Your task to perform on an android device: change timer sound Image 0: 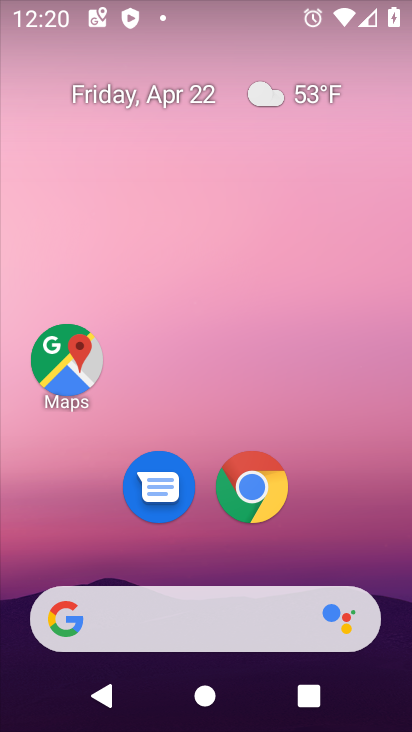
Step 0: drag from (335, 525) to (321, 76)
Your task to perform on an android device: change timer sound Image 1: 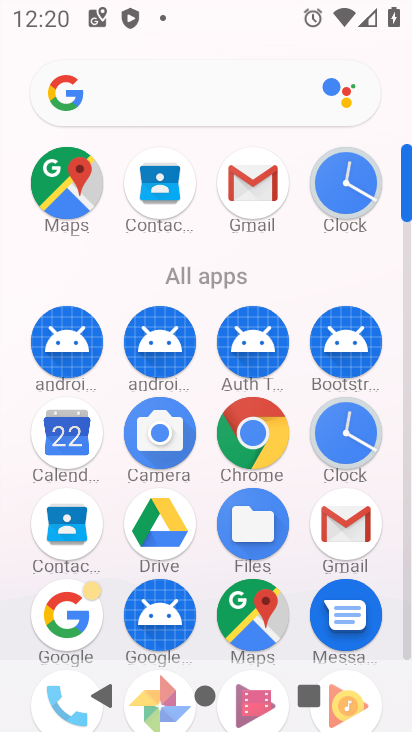
Step 1: click (352, 191)
Your task to perform on an android device: change timer sound Image 2: 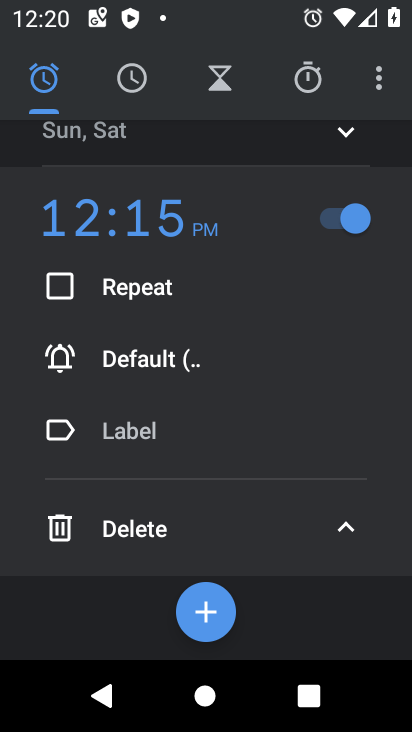
Step 2: click (379, 80)
Your task to perform on an android device: change timer sound Image 3: 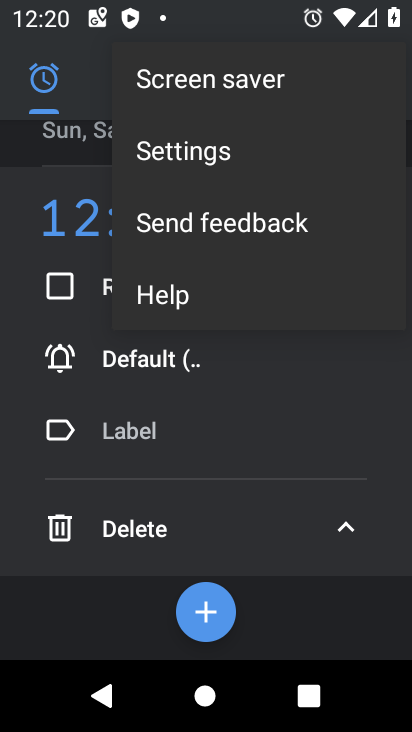
Step 3: click (310, 146)
Your task to perform on an android device: change timer sound Image 4: 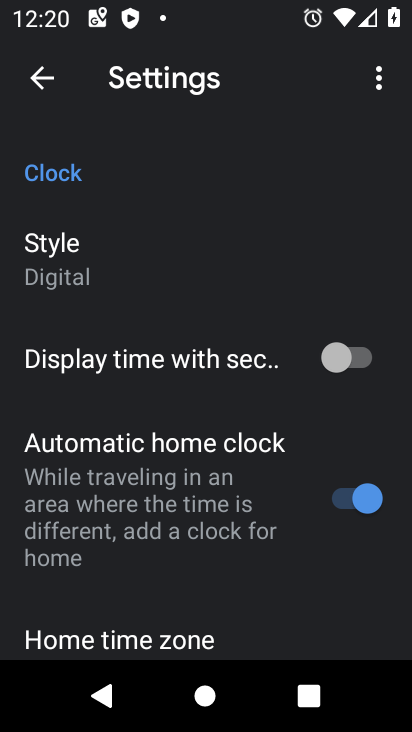
Step 4: drag from (176, 388) to (169, 143)
Your task to perform on an android device: change timer sound Image 5: 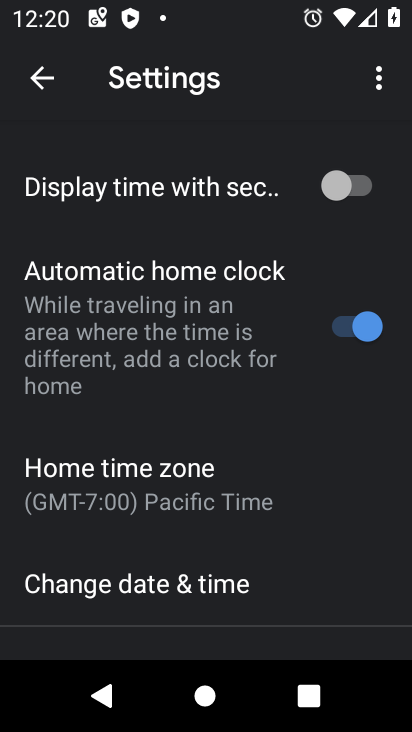
Step 5: drag from (188, 449) to (207, 146)
Your task to perform on an android device: change timer sound Image 6: 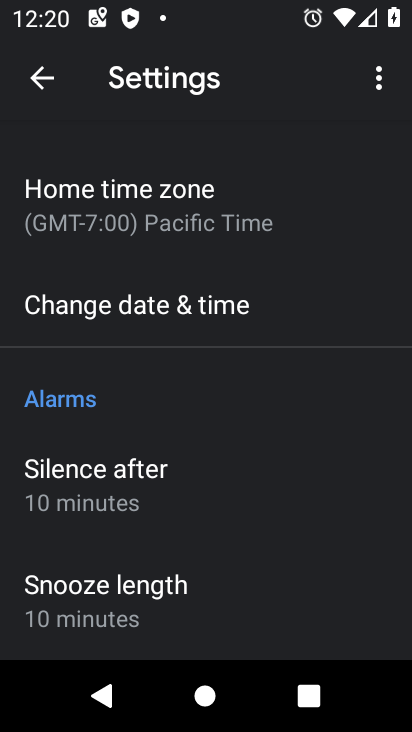
Step 6: drag from (230, 505) to (248, 214)
Your task to perform on an android device: change timer sound Image 7: 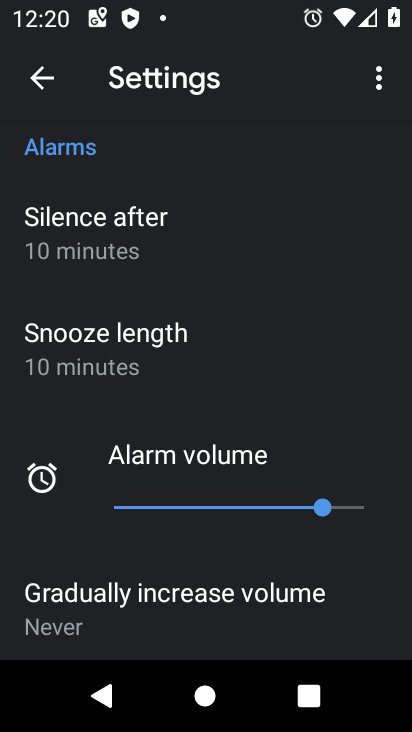
Step 7: drag from (226, 411) to (241, 148)
Your task to perform on an android device: change timer sound Image 8: 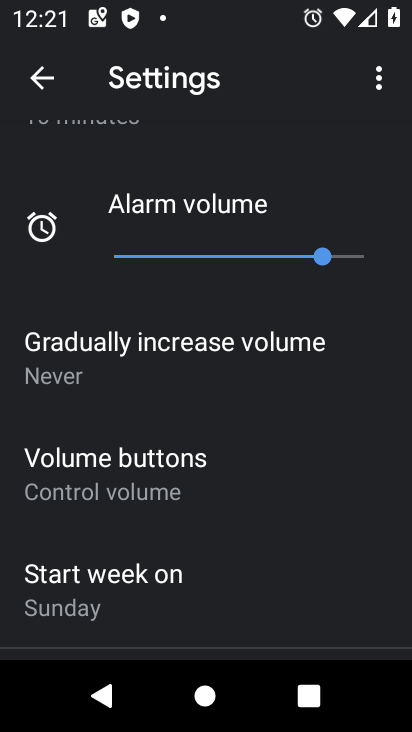
Step 8: drag from (218, 527) to (235, 226)
Your task to perform on an android device: change timer sound Image 9: 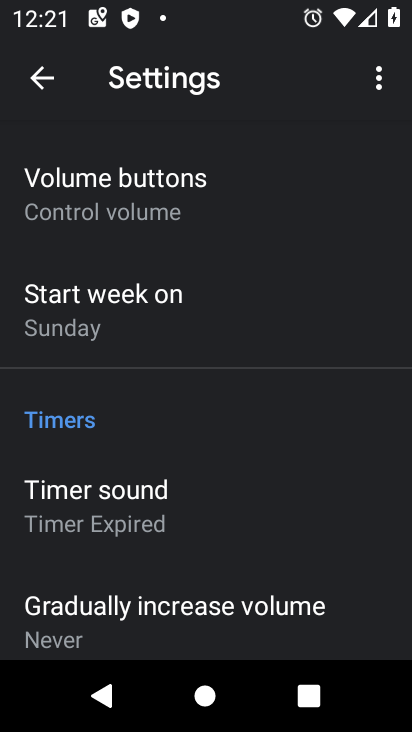
Step 9: click (205, 501)
Your task to perform on an android device: change timer sound Image 10: 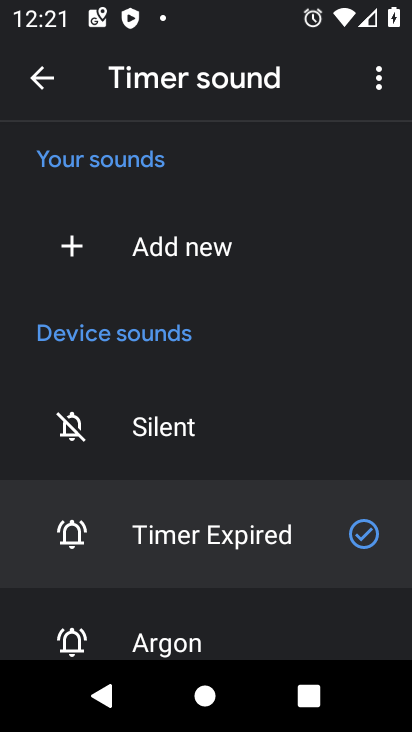
Step 10: click (218, 632)
Your task to perform on an android device: change timer sound Image 11: 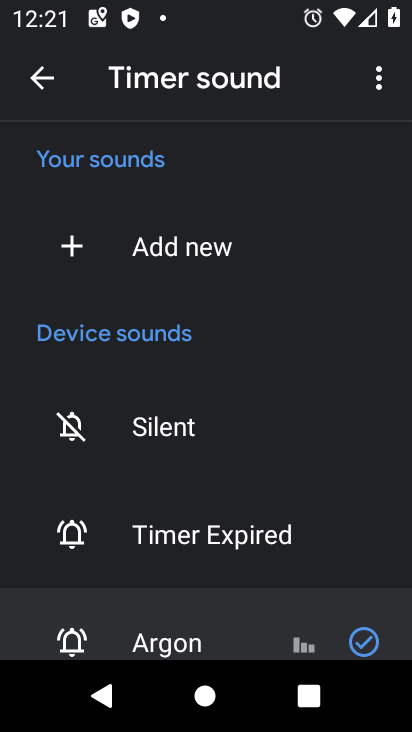
Step 11: task complete